Your task to perform on an android device: Go to ESPN.com Image 0: 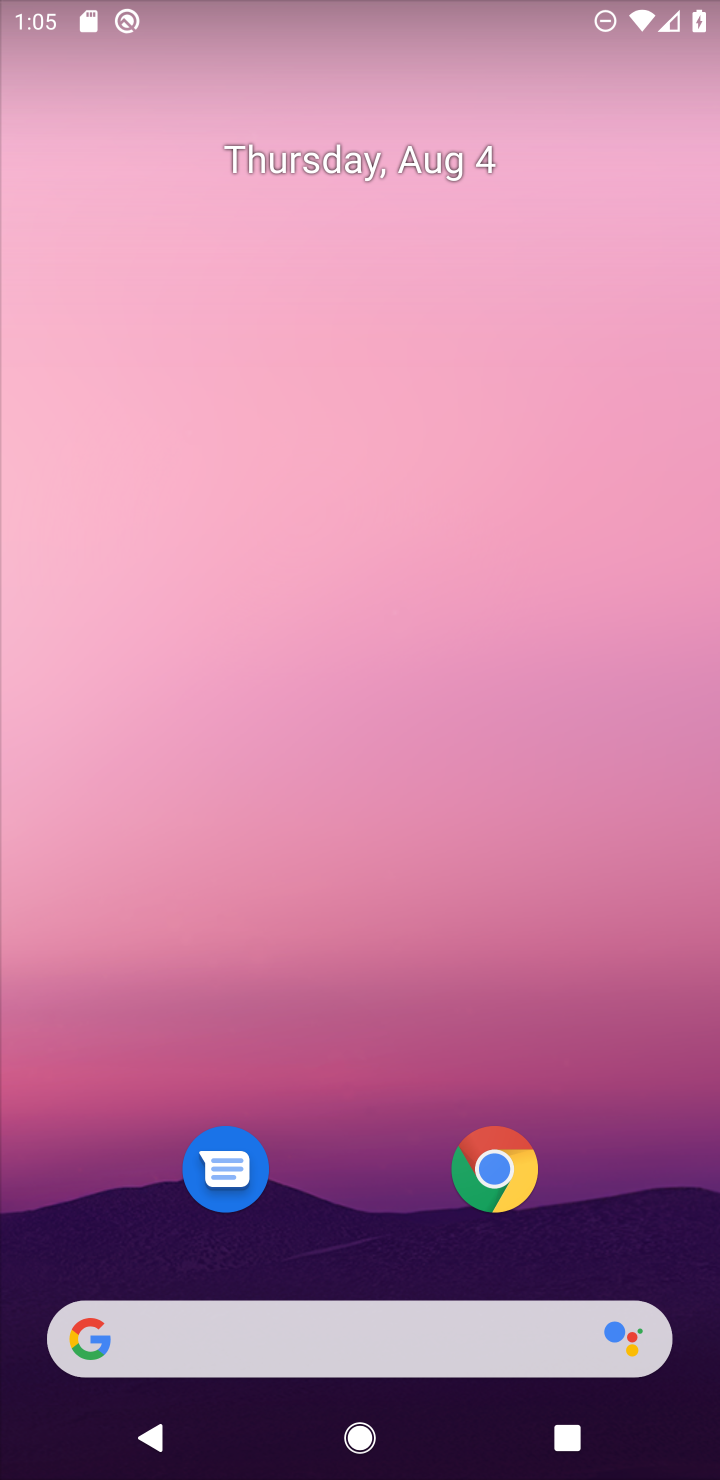
Step 0: click (500, 1186)
Your task to perform on an android device: Go to ESPN.com Image 1: 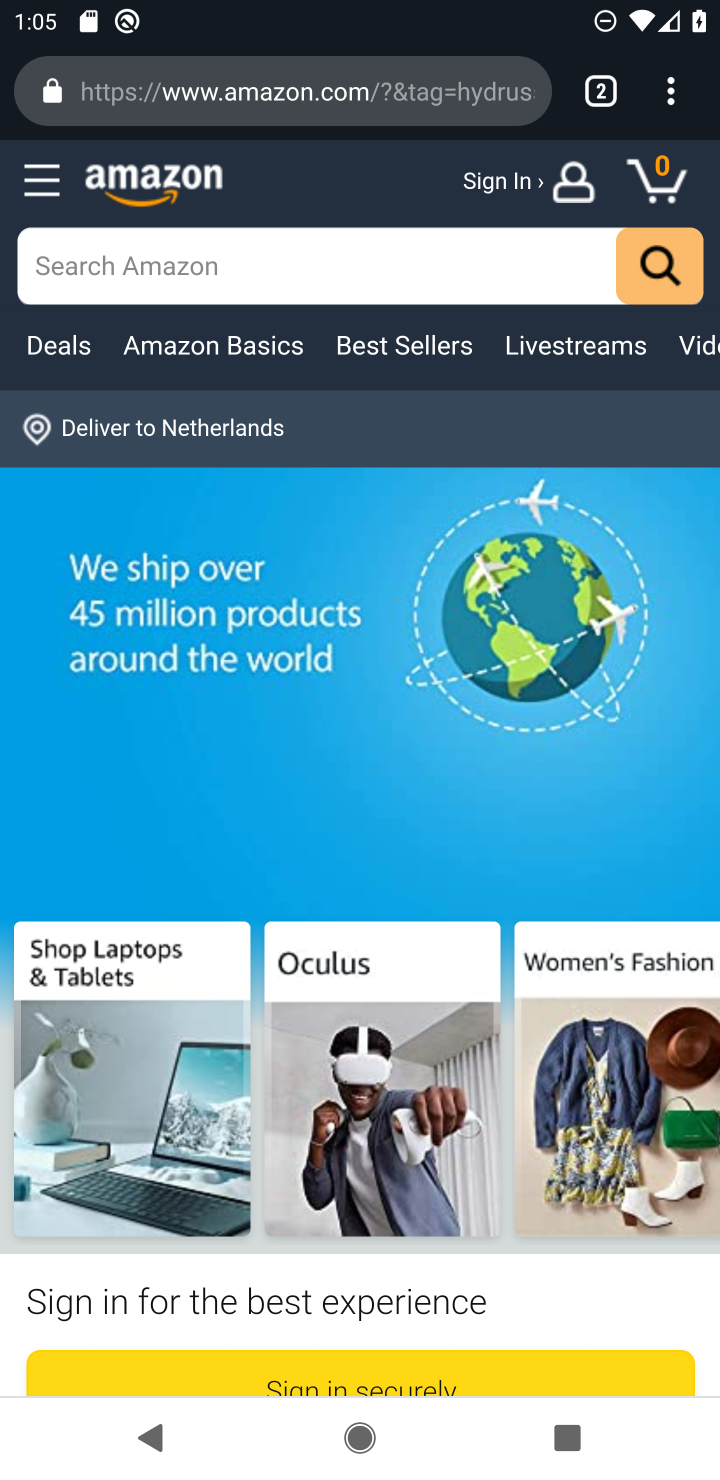
Step 1: click (246, 99)
Your task to perform on an android device: Go to ESPN.com Image 2: 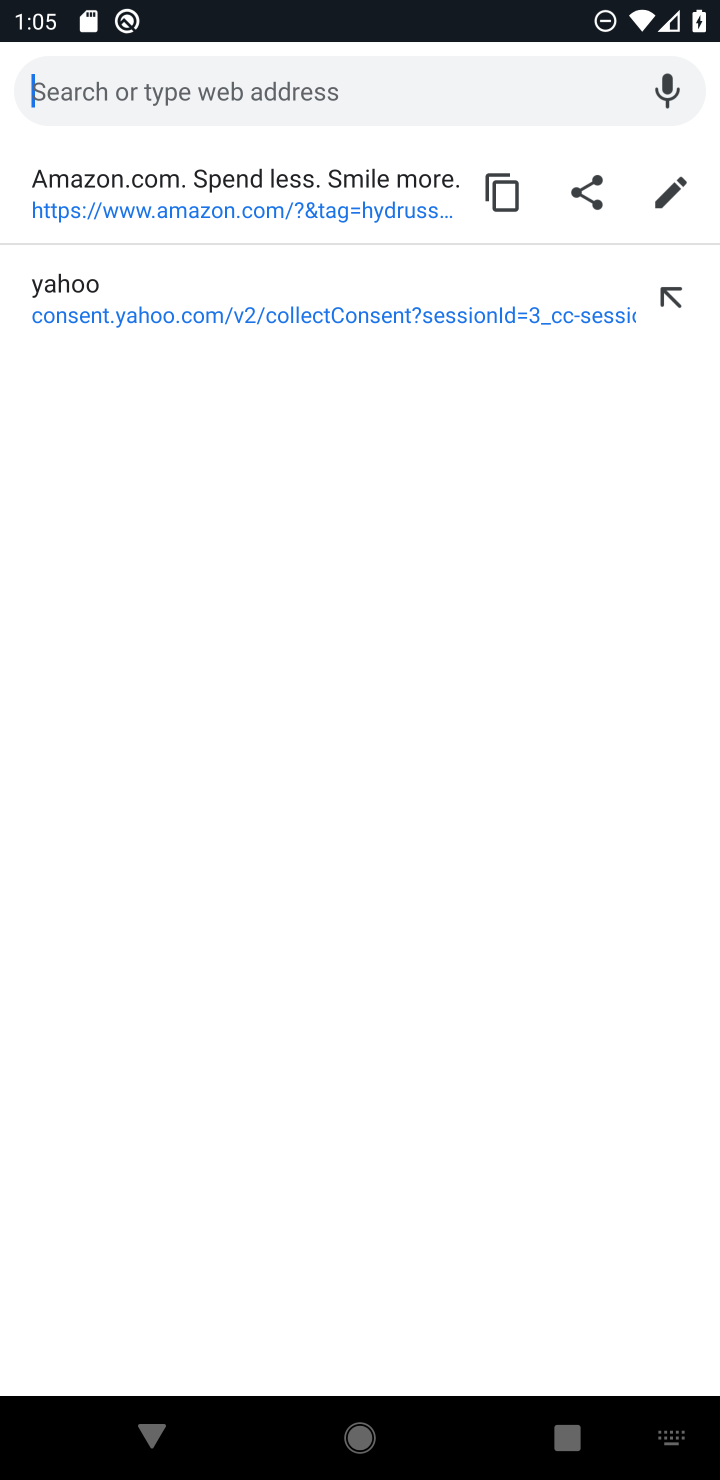
Step 2: type "espn.com"
Your task to perform on an android device: Go to ESPN.com Image 3: 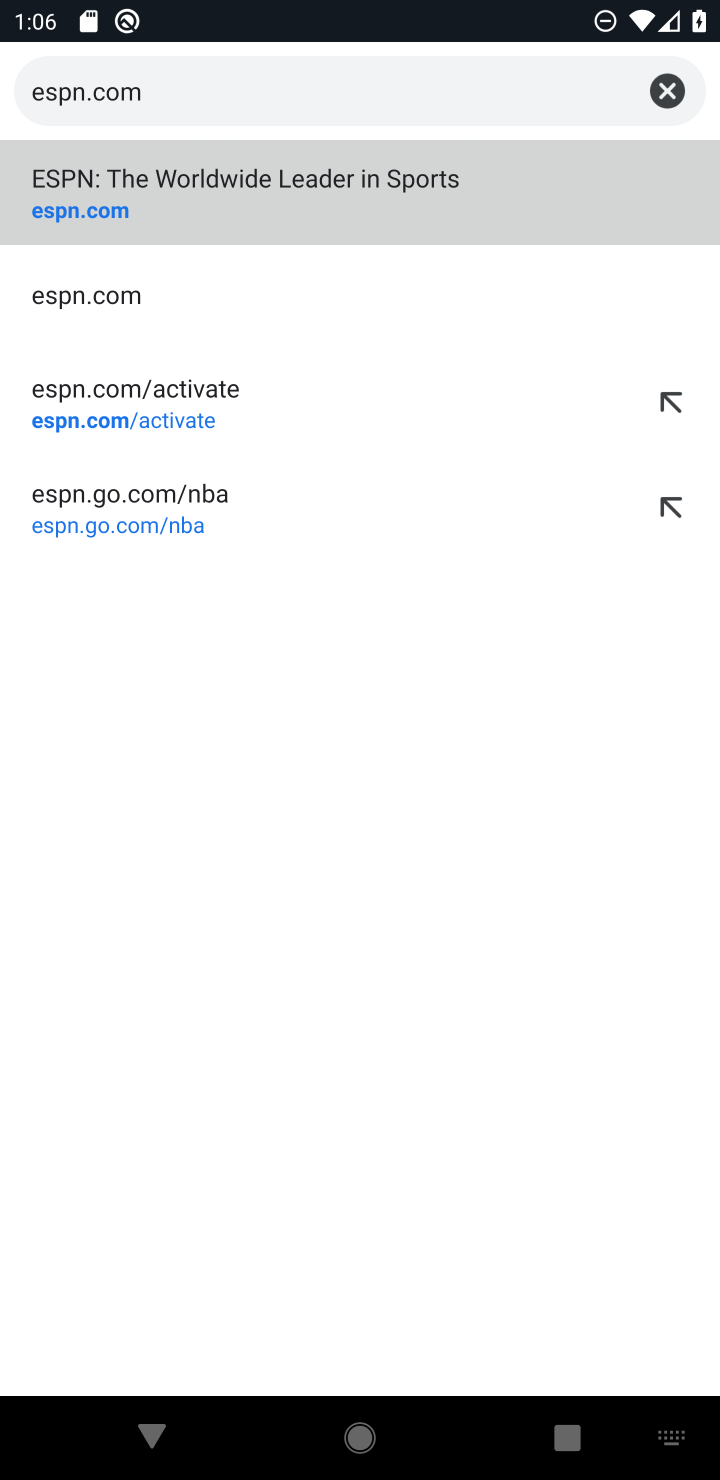
Step 3: click (84, 215)
Your task to perform on an android device: Go to ESPN.com Image 4: 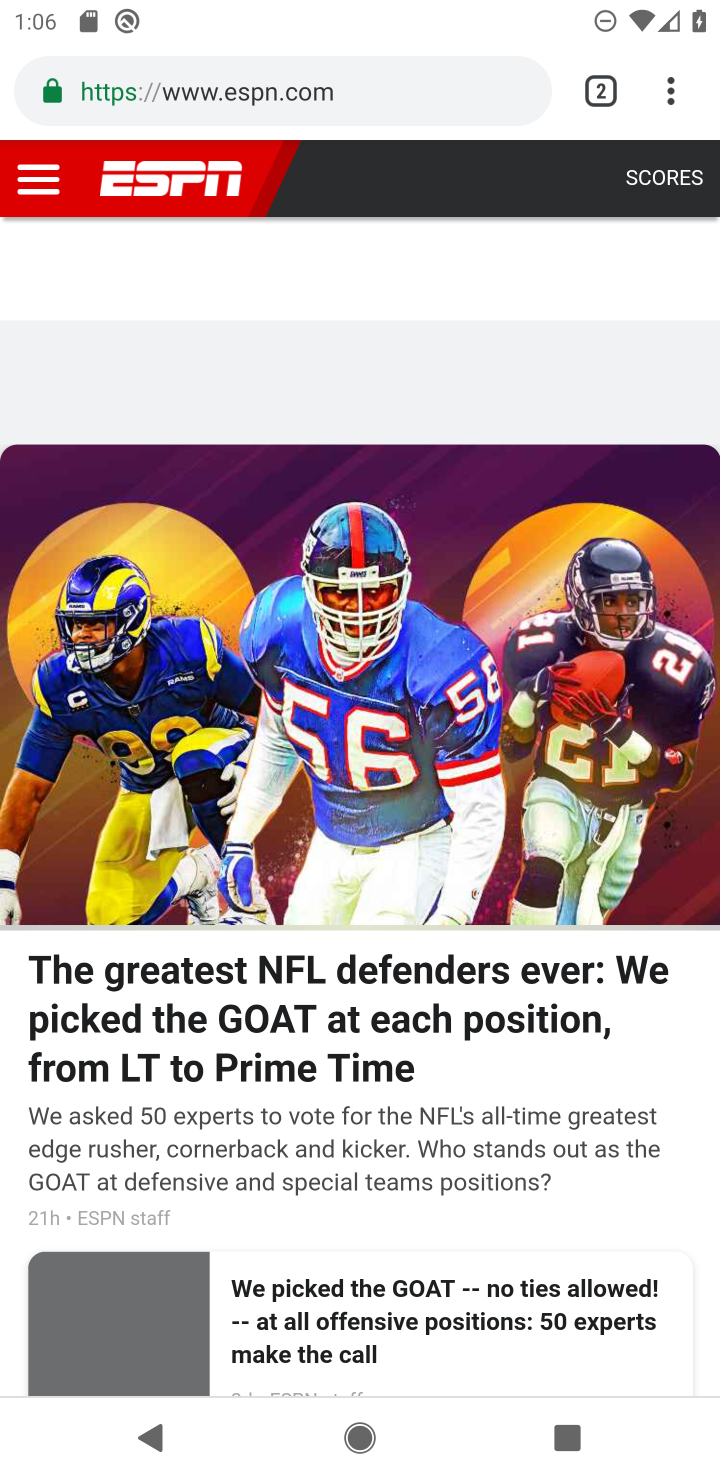
Step 4: task complete